Your task to perform on an android device: clear all cookies in the chrome app Image 0: 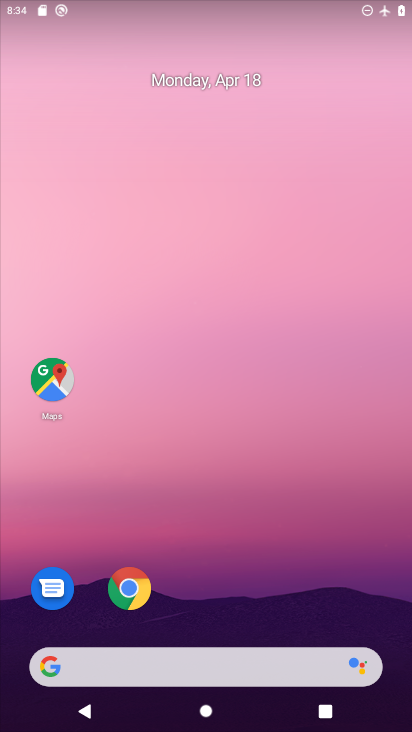
Step 0: click (127, 591)
Your task to perform on an android device: clear all cookies in the chrome app Image 1: 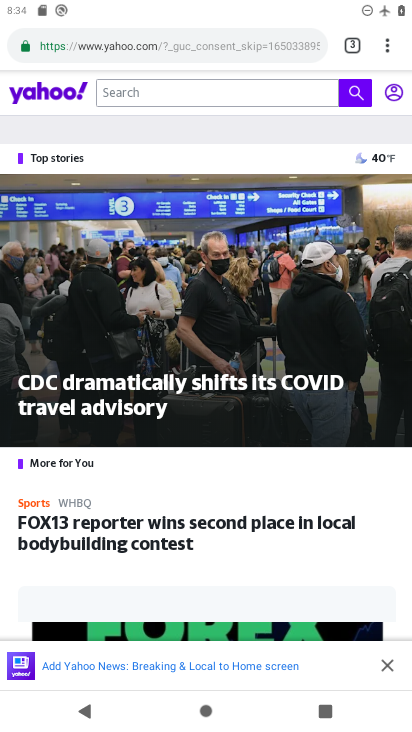
Step 1: click (386, 47)
Your task to perform on an android device: clear all cookies in the chrome app Image 2: 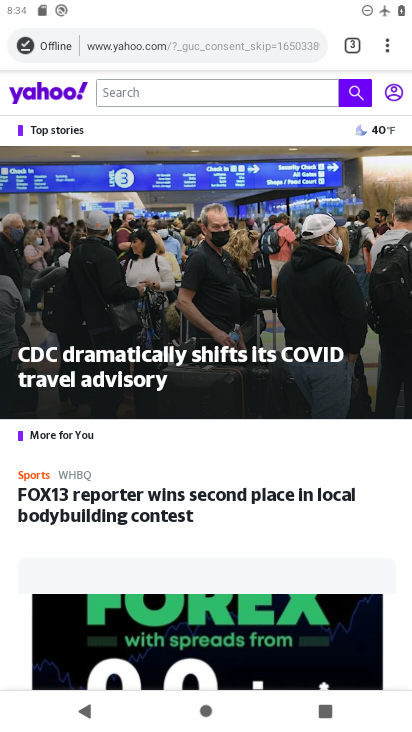
Step 2: click (386, 47)
Your task to perform on an android device: clear all cookies in the chrome app Image 3: 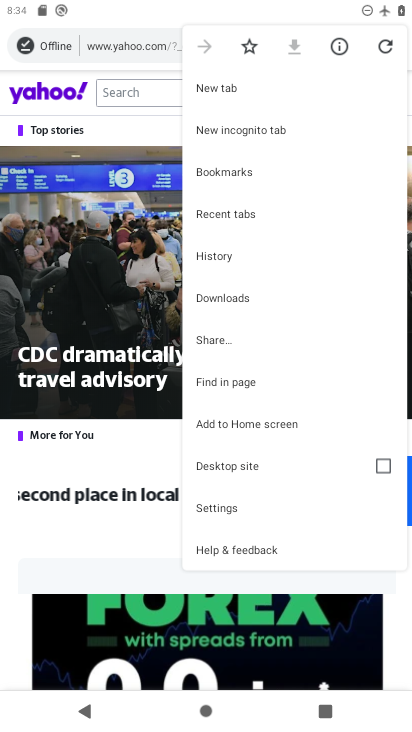
Step 3: click (201, 254)
Your task to perform on an android device: clear all cookies in the chrome app Image 4: 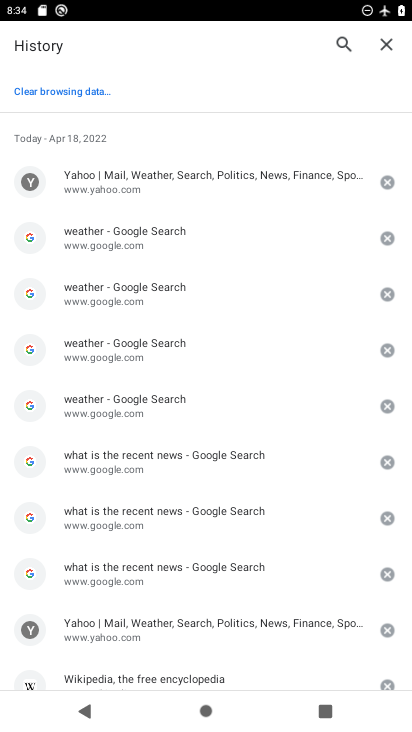
Step 4: click (69, 91)
Your task to perform on an android device: clear all cookies in the chrome app Image 5: 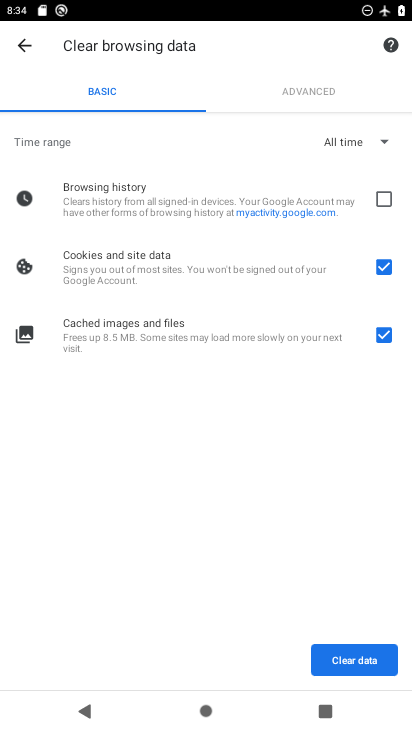
Step 5: click (348, 666)
Your task to perform on an android device: clear all cookies in the chrome app Image 6: 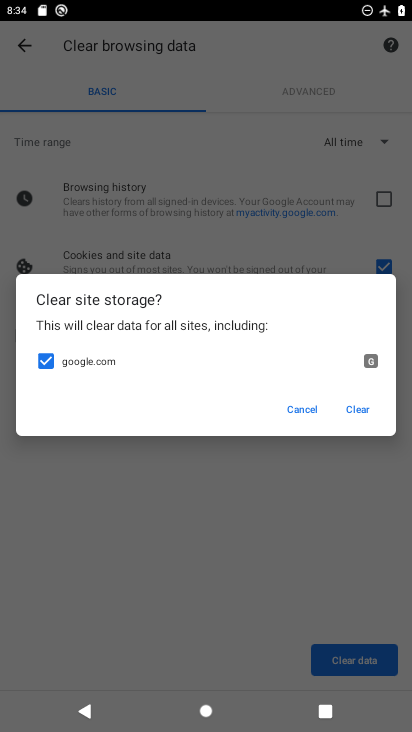
Step 6: click (362, 412)
Your task to perform on an android device: clear all cookies in the chrome app Image 7: 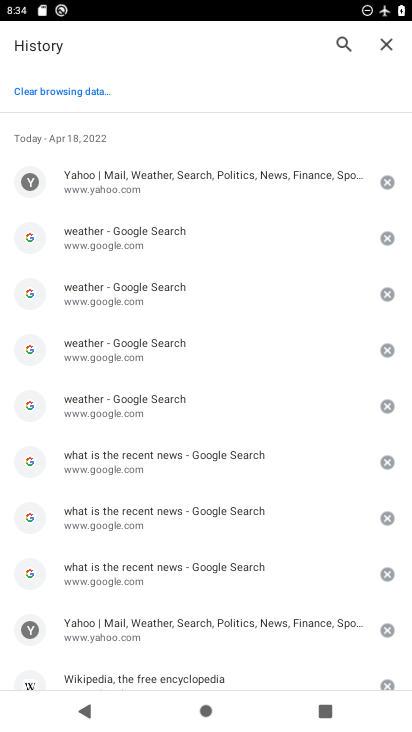
Step 7: task complete